Your task to perform on an android device: visit the assistant section in the google photos Image 0: 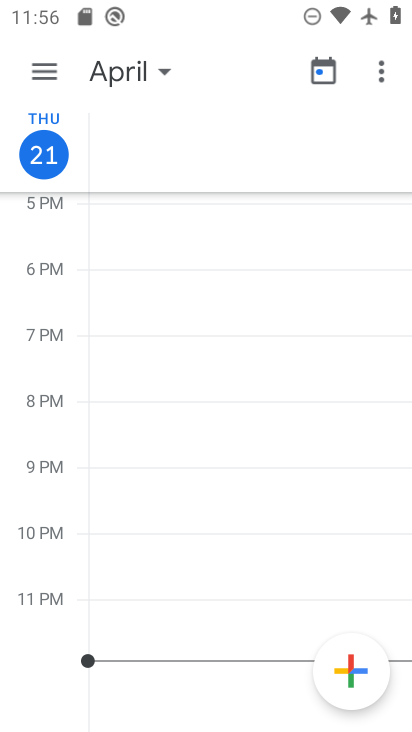
Step 0: press home button
Your task to perform on an android device: visit the assistant section in the google photos Image 1: 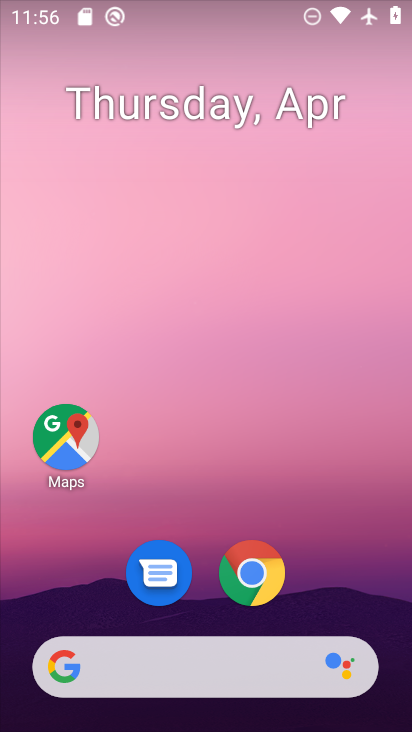
Step 1: drag from (338, 495) to (333, 39)
Your task to perform on an android device: visit the assistant section in the google photos Image 2: 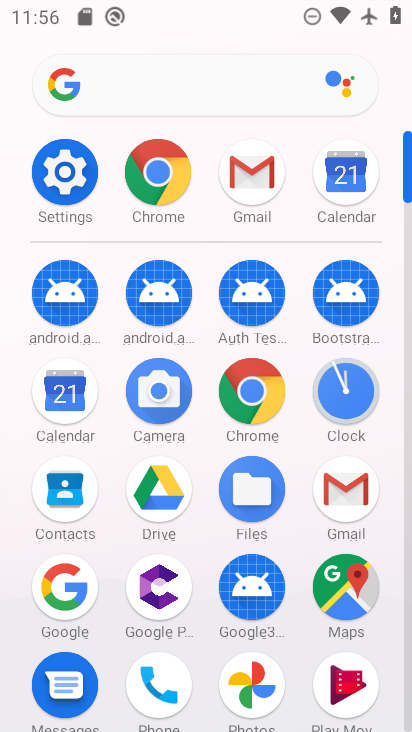
Step 2: click (225, 671)
Your task to perform on an android device: visit the assistant section in the google photos Image 3: 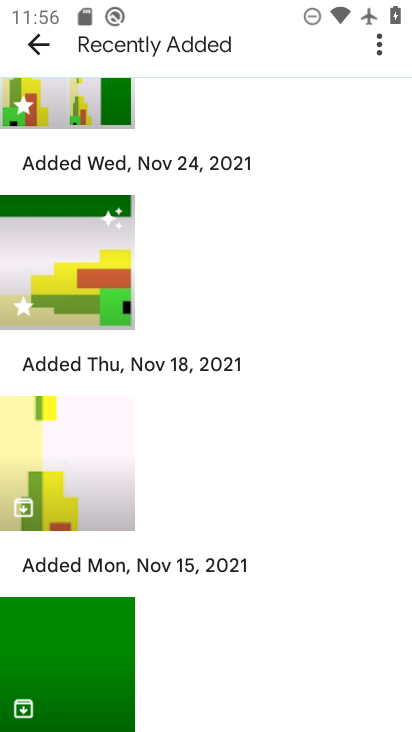
Step 3: press back button
Your task to perform on an android device: visit the assistant section in the google photos Image 4: 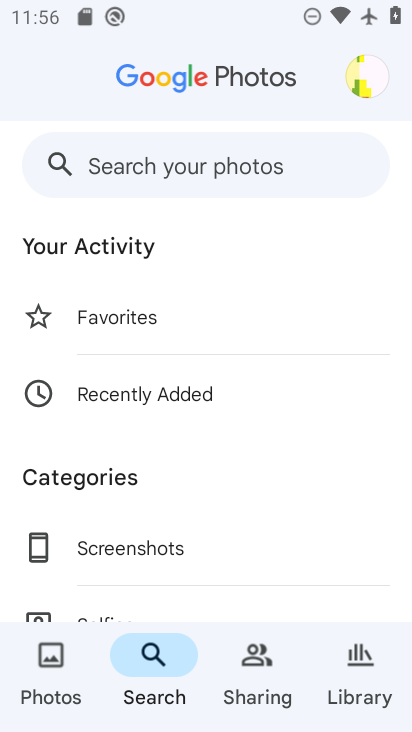
Step 4: click (52, 672)
Your task to perform on an android device: visit the assistant section in the google photos Image 5: 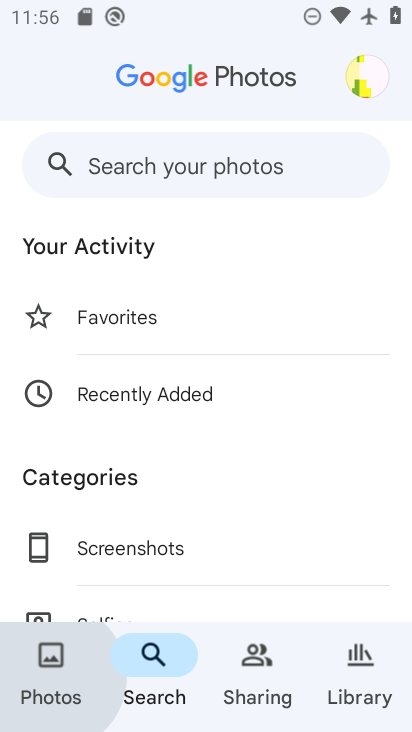
Step 5: click (52, 672)
Your task to perform on an android device: visit the assistant section in the google photos Image 6: 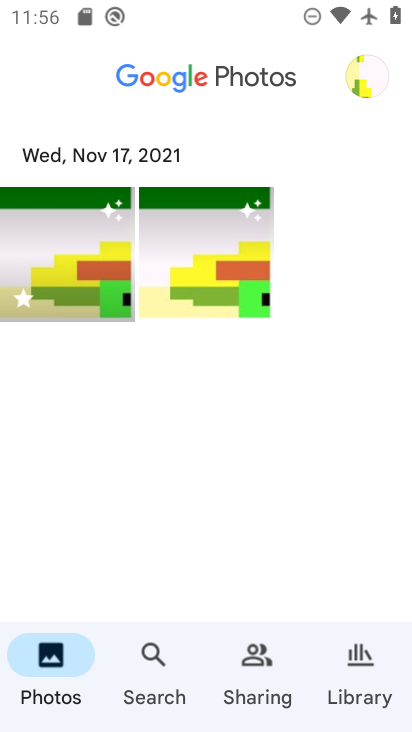
Step 6: press back button
Your task to perform on an android device: visit the assistant section in the google photos Image 7: 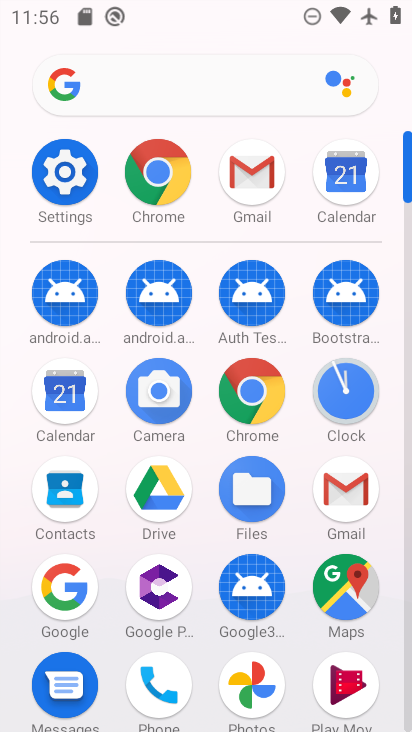
Step 7: click (264, 694)
Your task to perform on an android device: visit the assistant section in the google photos Image 8: 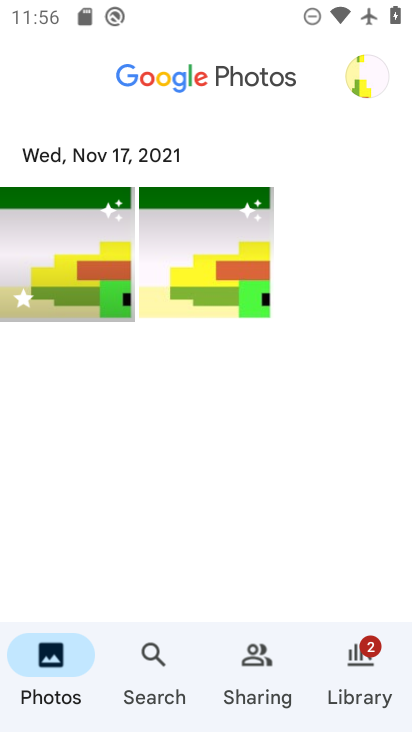
Step 8: click (371, 64)
Your task to perform on an android device: visit the assistant section in the google photos Image 9: 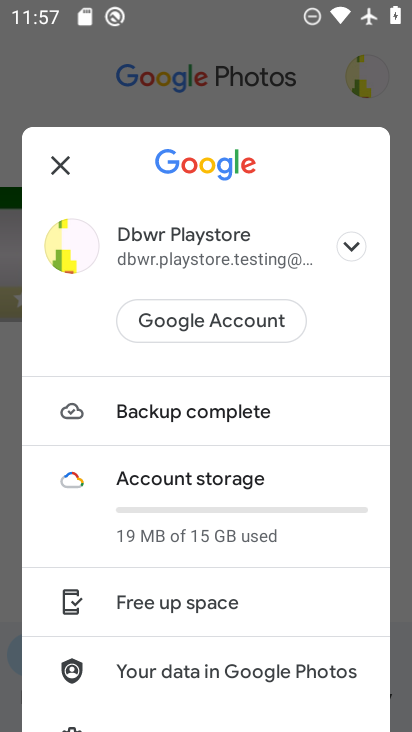
Step 9: task complete